Your task to perform on an android device: Search for the best rated desk chair on Article.com Image 0: 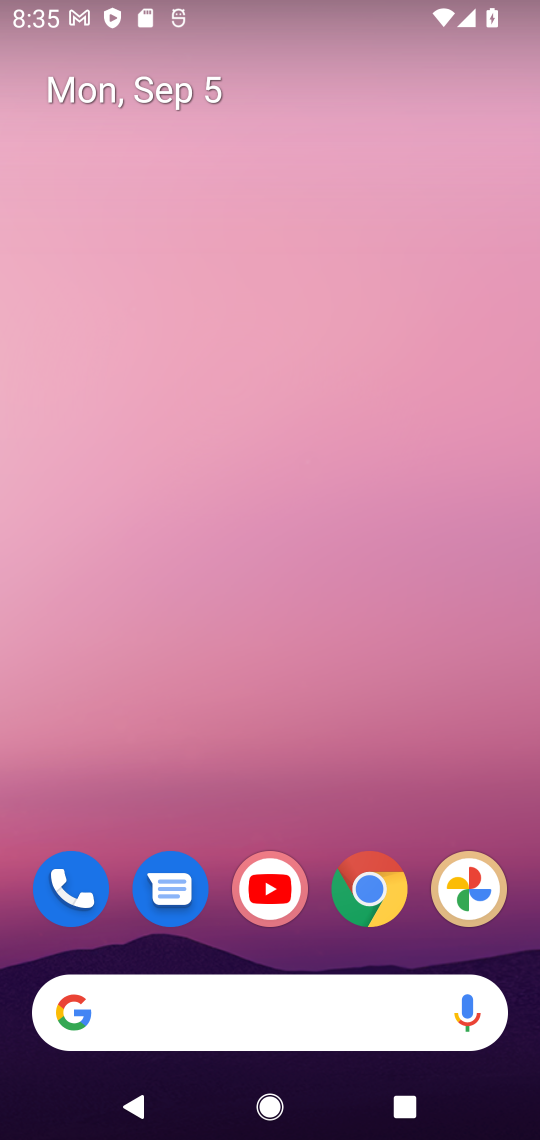
Step 0: click (280, 1014)
Your task to perform on an android device: Search for the best rated desk chair on Article.com Image 1: 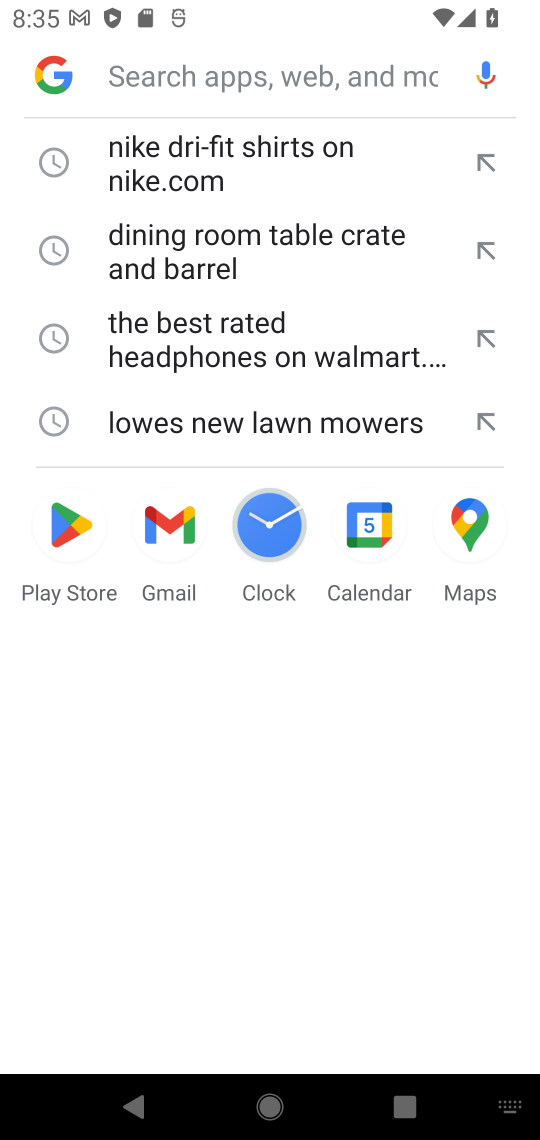
Step 1: type " the best rated desk chair on Article.com"
Your task to perform on an android device: Search for the best rated desk chair on Article.com Image 2: 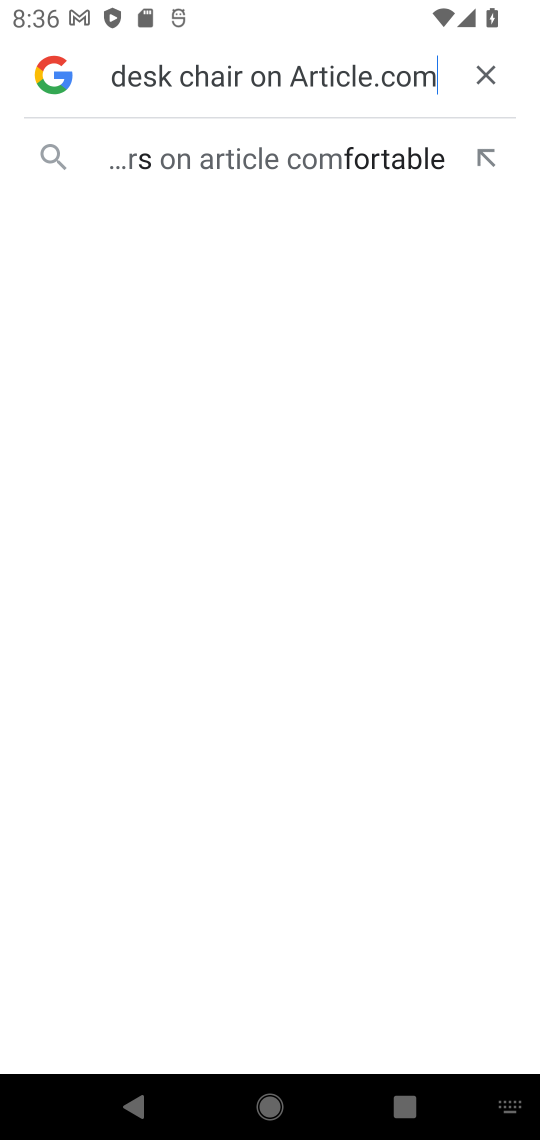
Step 2: click (237, 162)
Your task to perform on an android device: Search for the best rated desk chair on Article.com Image 3: 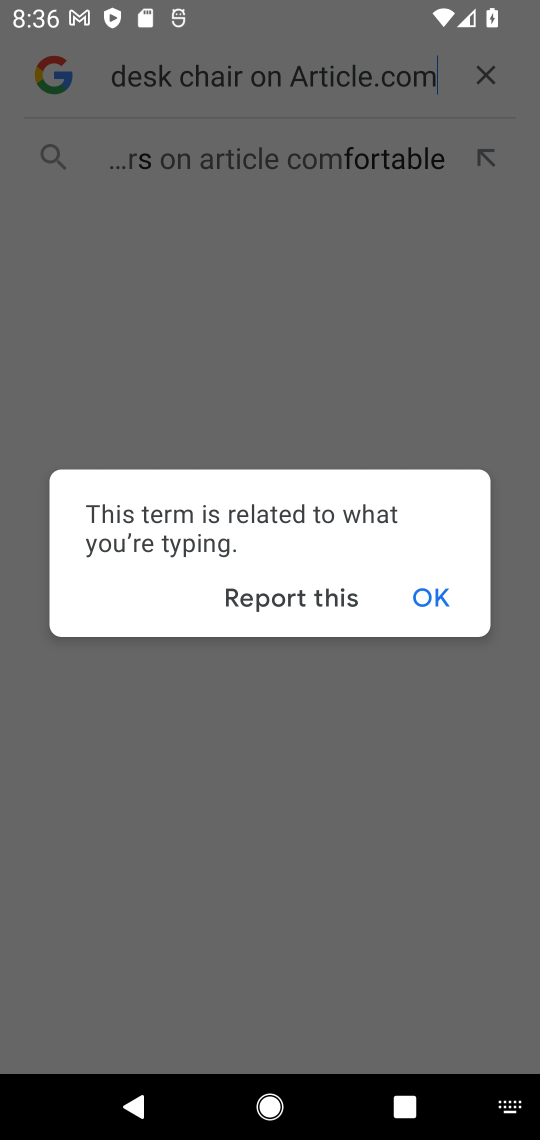
Step 3: click (423, 604)
Your task to perform on an android device: Search for the best rated desk chair on Article.com Image 4: 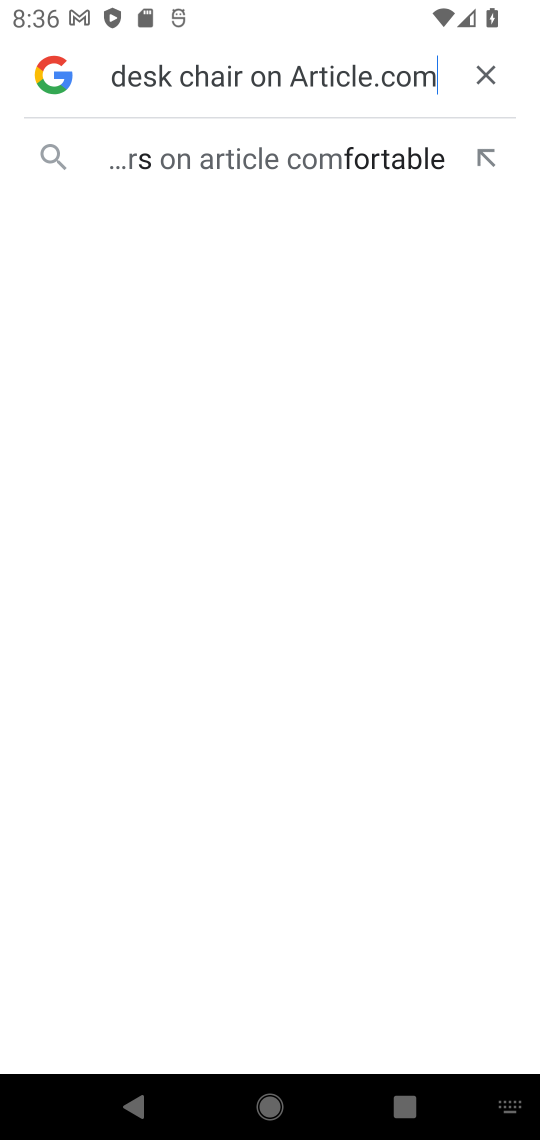
Step 4: press back button
Your task to perform on an android device: Search for the best rated desk chair on Article.com Image 5: 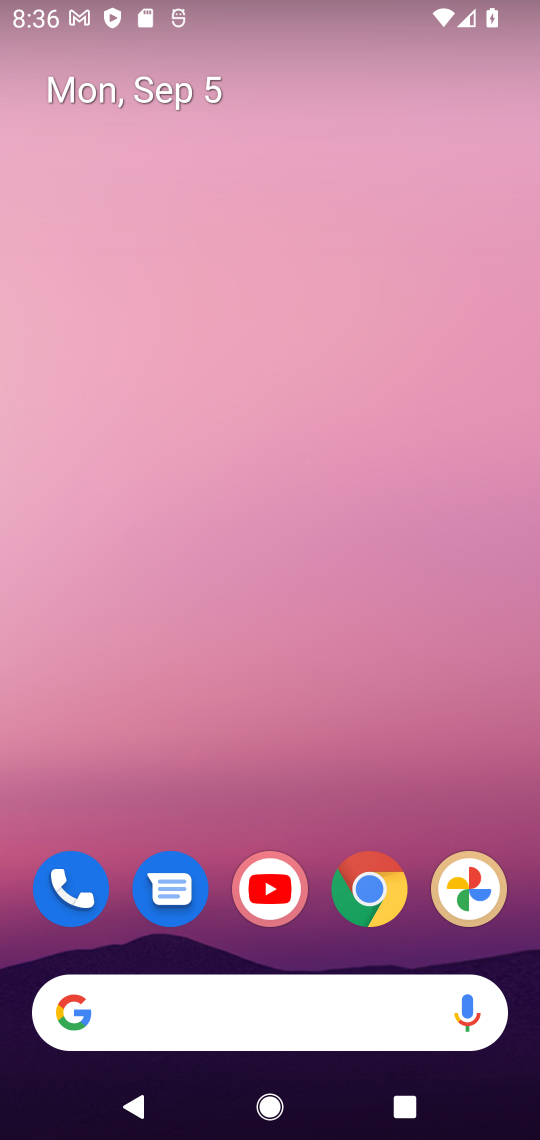
Step 5: click (267, 1007)
Your task to perform on an android device: Search for the best rated desk chair on Article.com Image 6: 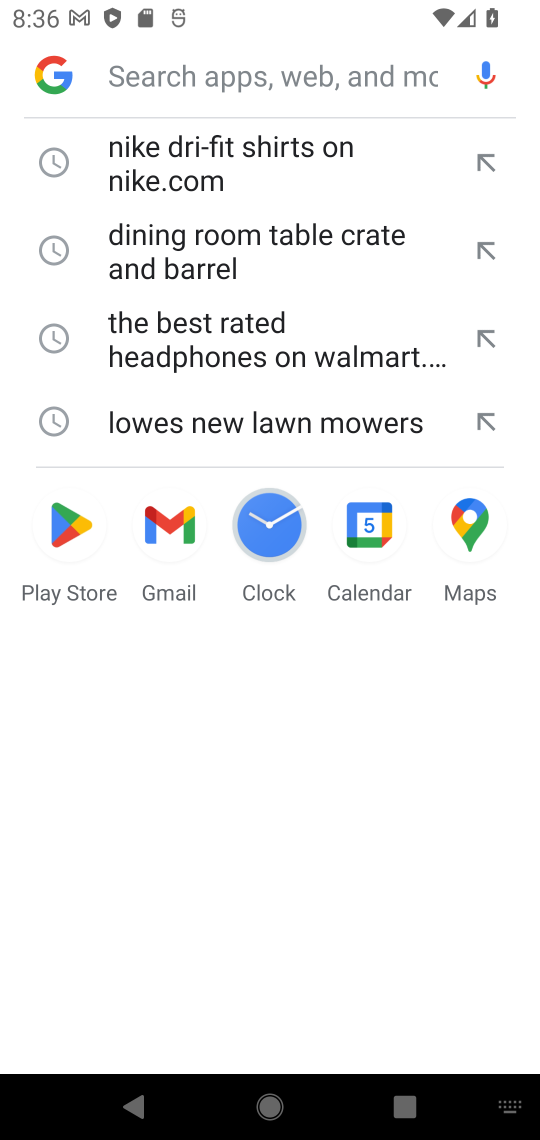
Step 6: type " the best rated desk chair on Article.com"
Your task to perform on an android device: Search for the best rated desk chair on Article.com Image 7: 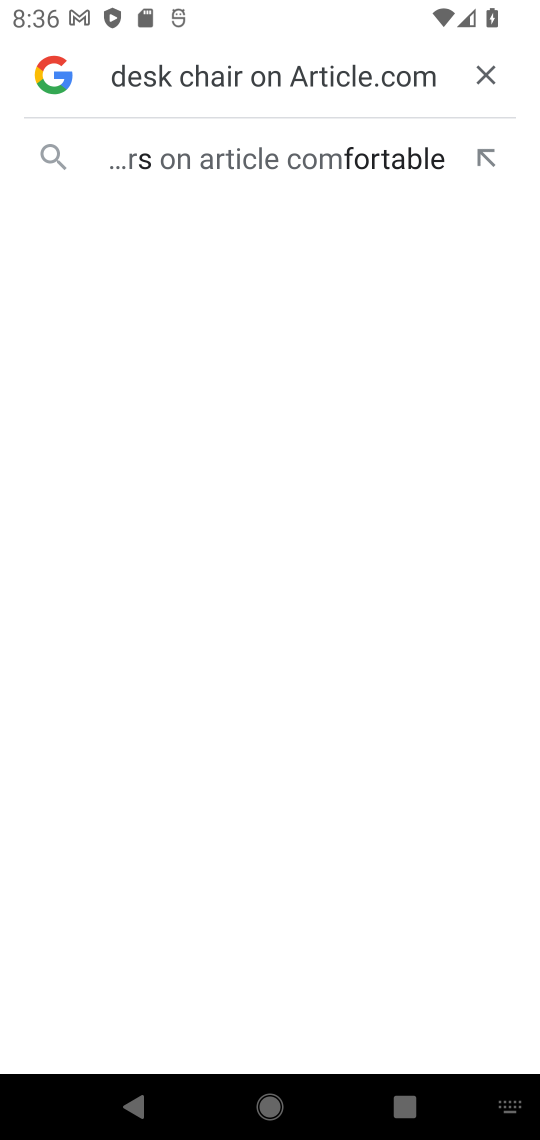
Step 7: click (232, 148)
Your task to perform on an android device: Search for the best rated desk chair on Article.com Image 8: 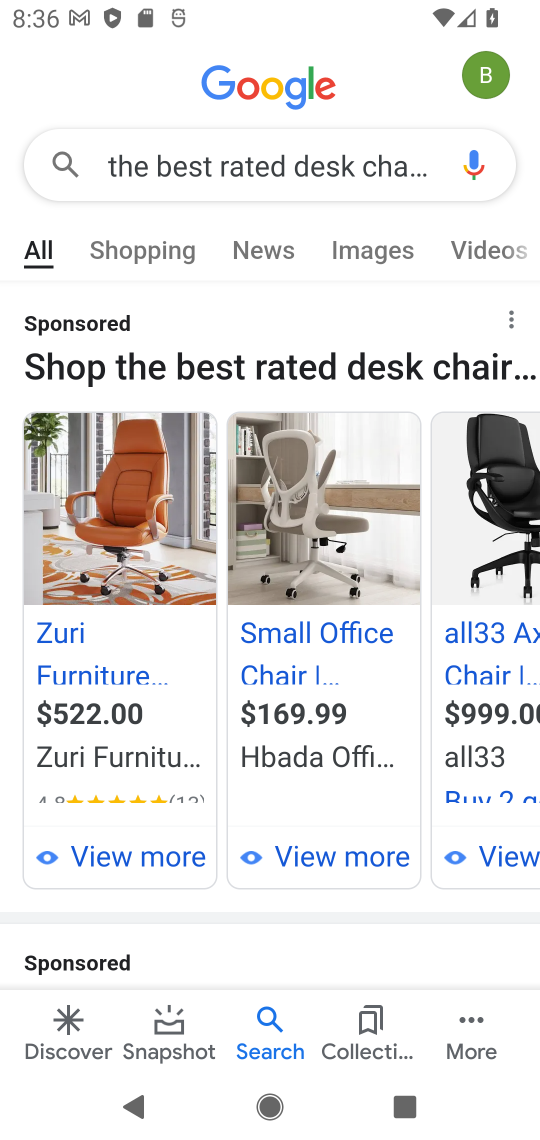
Step 8: click (231, 247)
Your task to perform on an android device: Search for the best rated desk chair on Article.com Image 9: 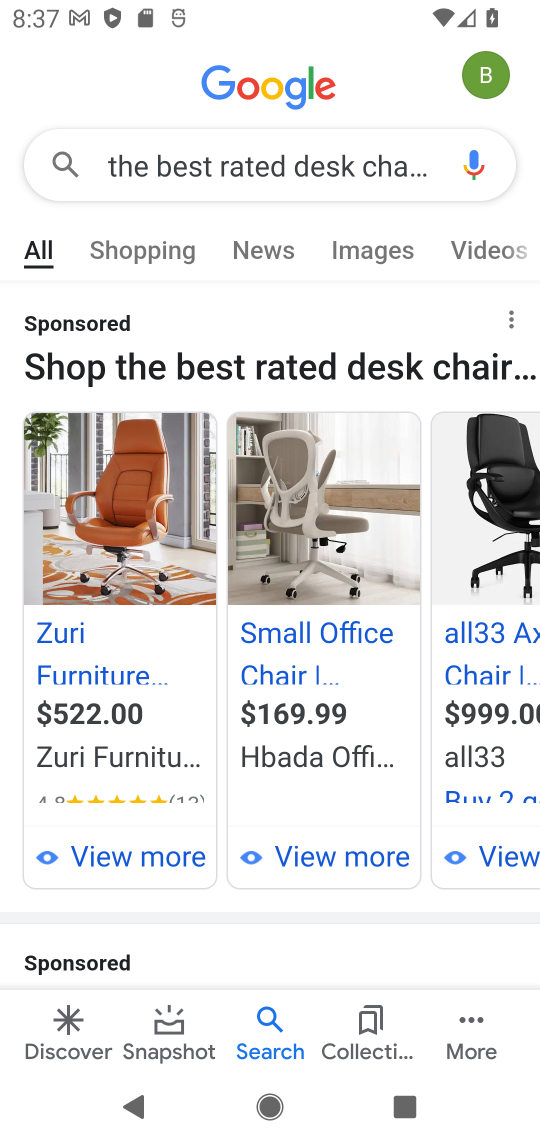
Step 9: drag from (231, 789) to (194, 254)
Your task to perform on an android device: Search for the best rated desk chair on Article.com Image 10: 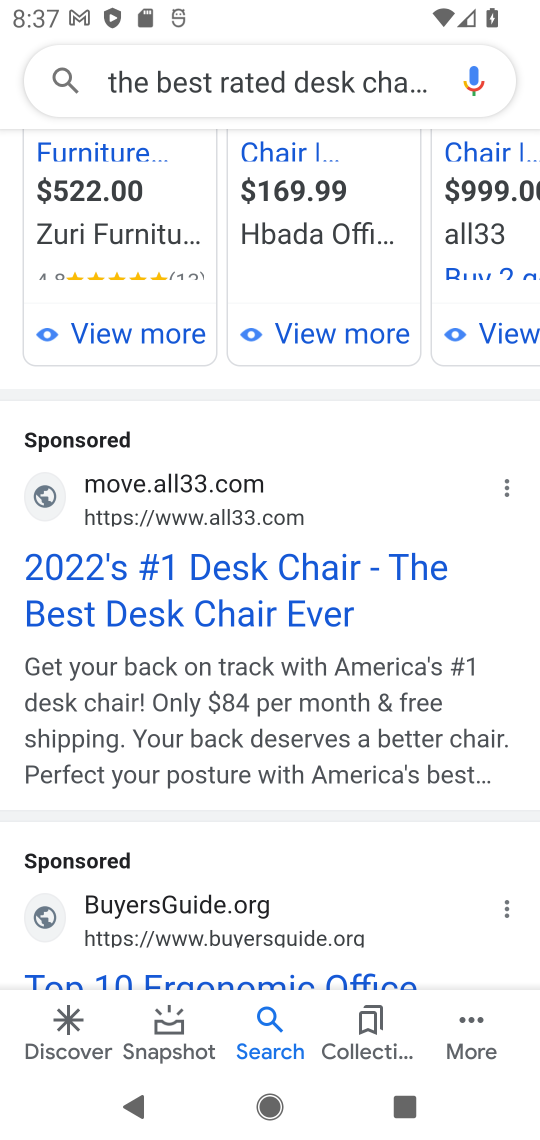
Step 10: click (327, 840)
Your task to perform on an android device: Search for the best rated desk chair on Article.com Image 11: 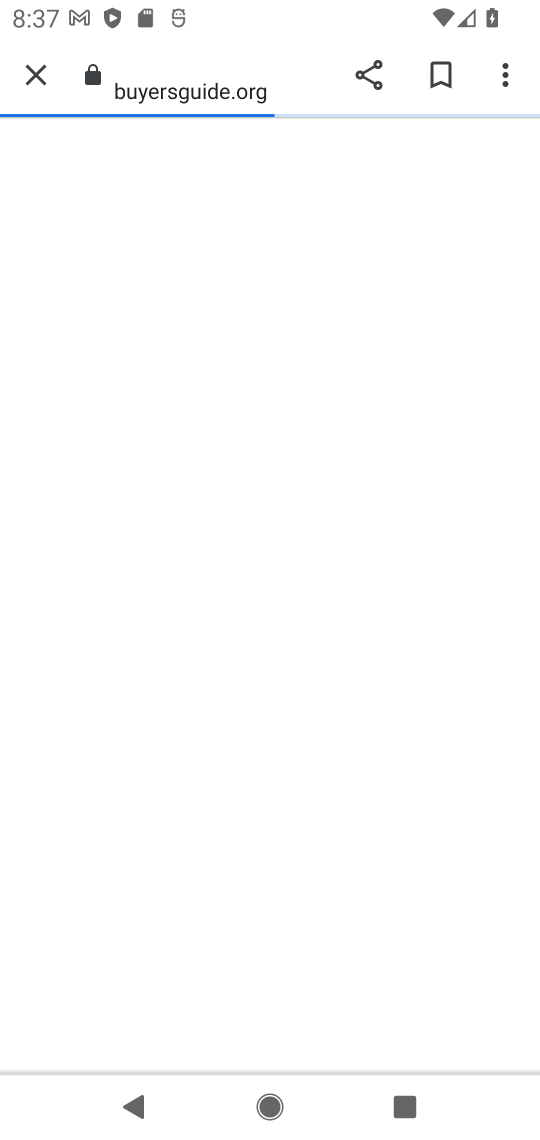
Step 11: task complete